Your task to perform on an android device: Open internet settings Image 0: 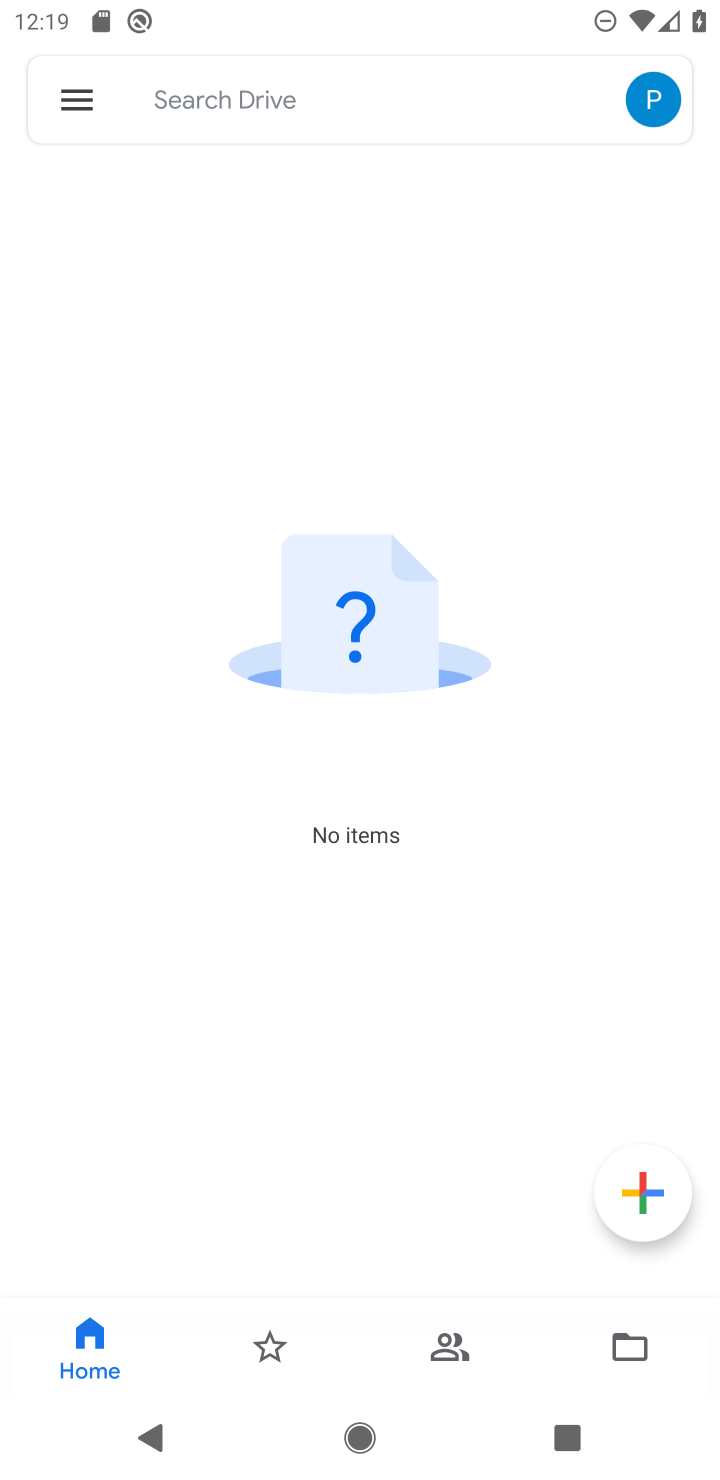
Step 0: press home button
Your task to perform on an android device: Open internet settings Image 1: 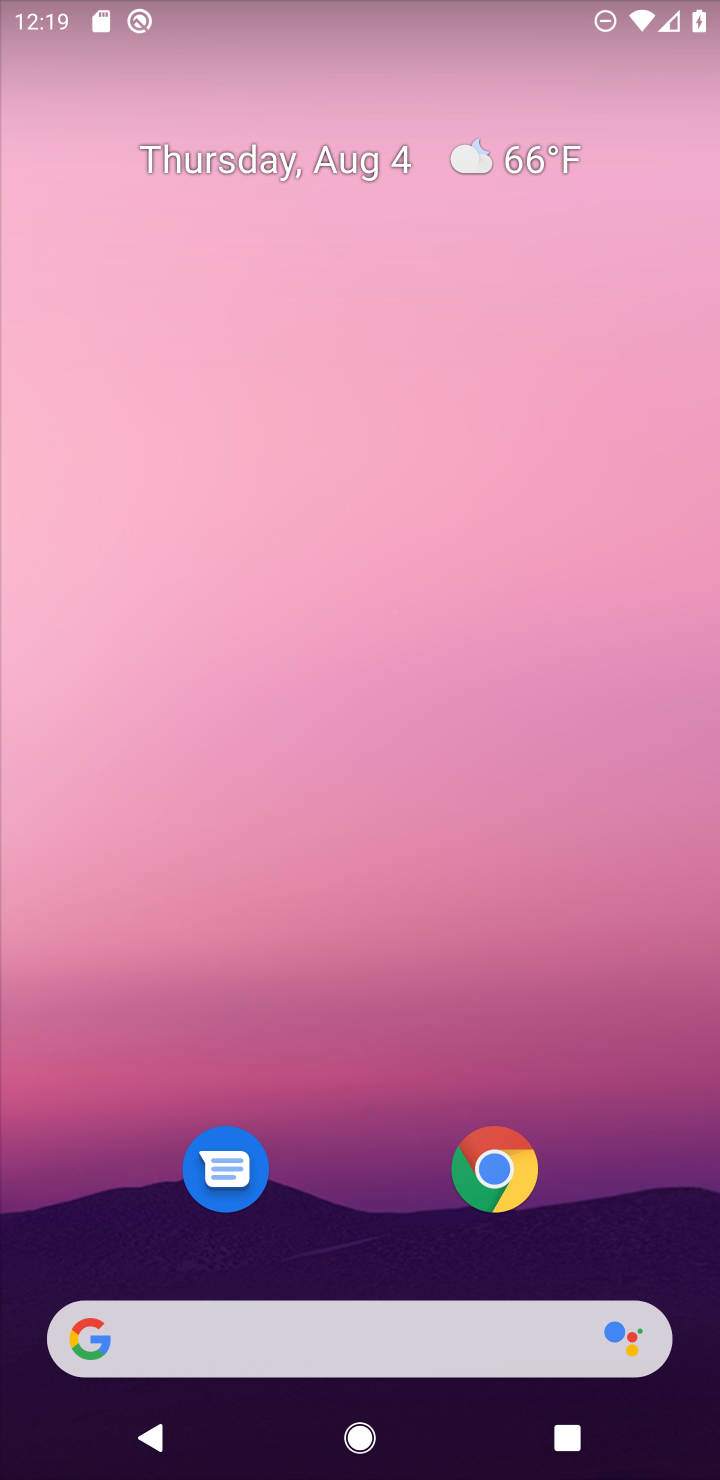
Step 1: drag from (370, 1243) to (379, 41)
Your task to perform on an android device: Open internet settings Image 2: 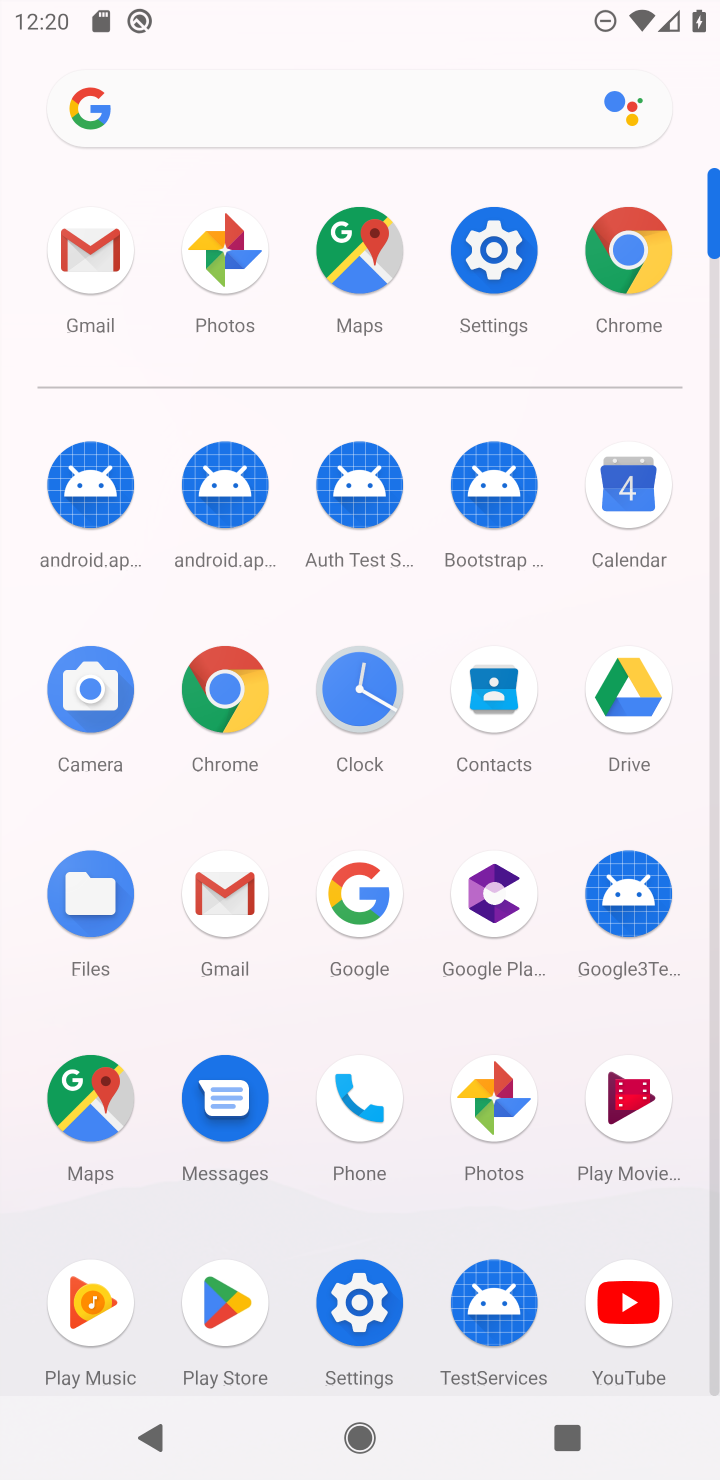
Step 2: click (485, 257)
Your task to perform on an android device: Open internet settings Image 3: 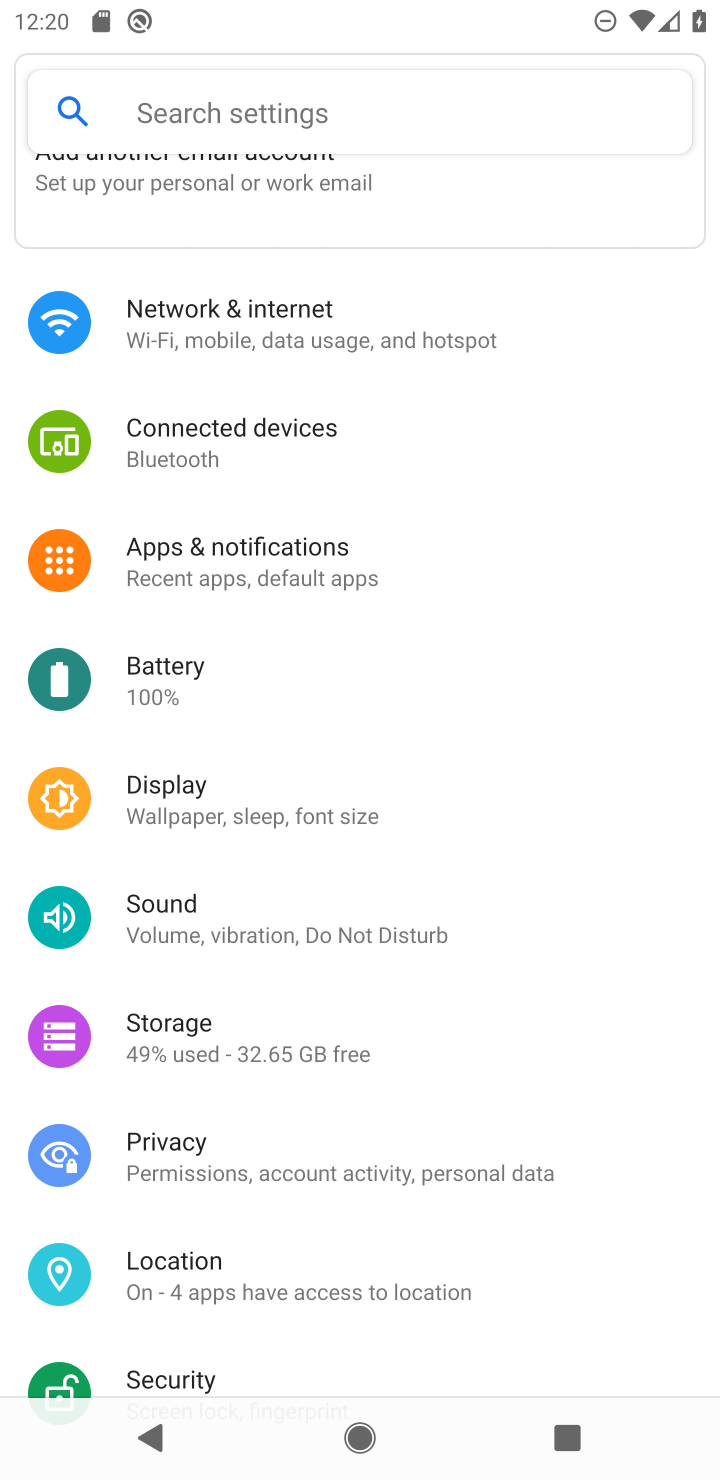
Step 3: click (207, 331)
Your task to perform on an android device: Open internet settings Image 4: 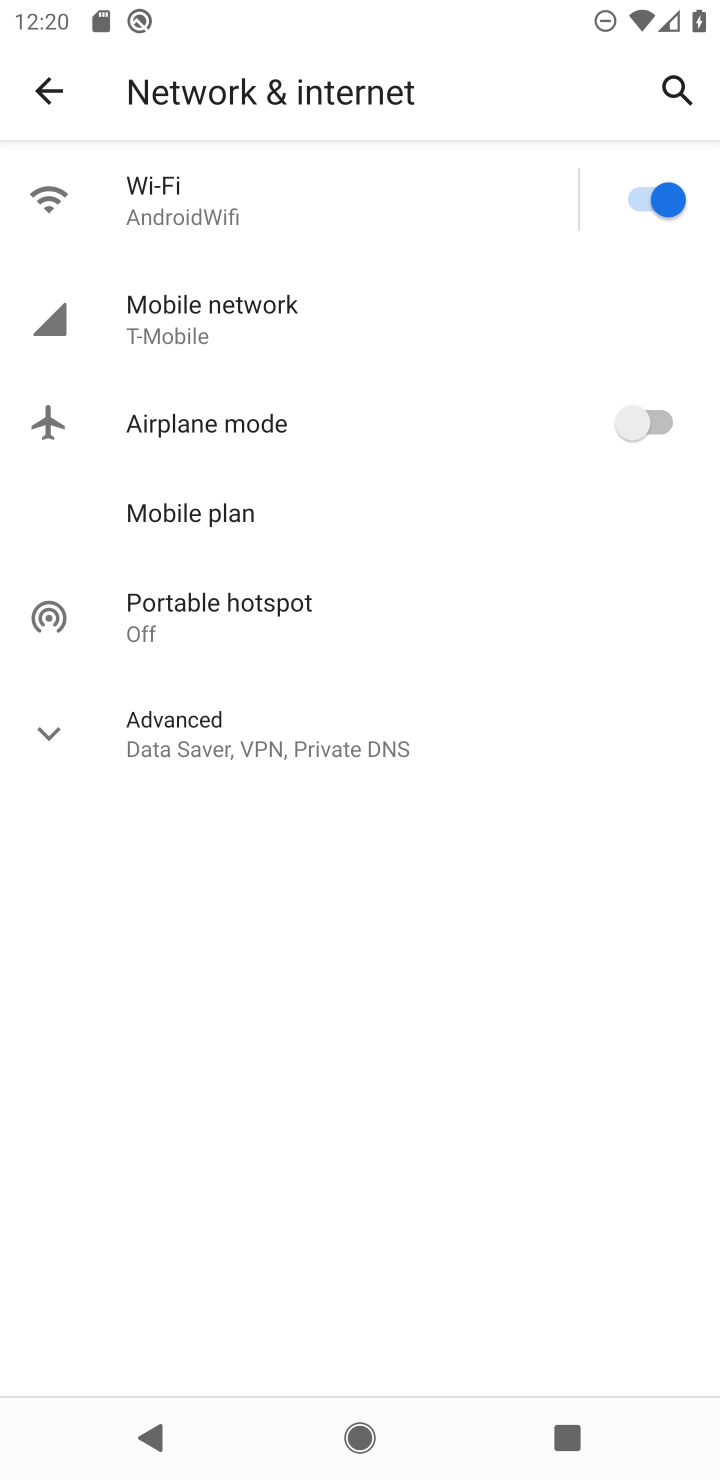
Step 4: click (63, 747)
Your task to perform on an android device: Open internet settings Image 5: 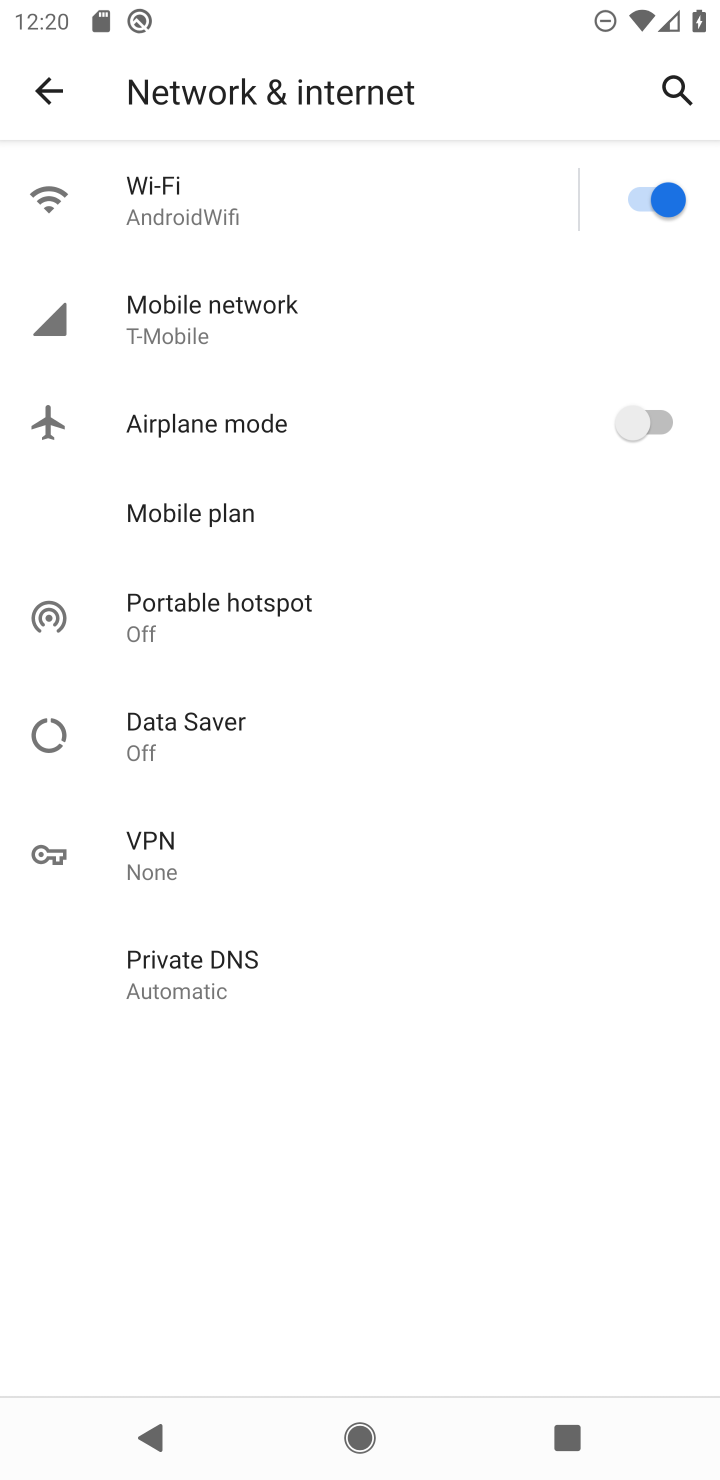
Step 5: task complete